Your task to perform on an android device: Go to CNN.com Image 0: 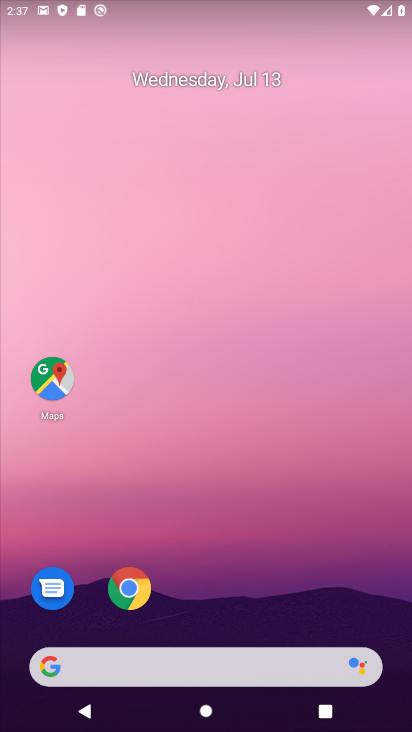
Step 0: click (131, 129)
Your task to perform on an android device: Go to CNN.com Image 1: 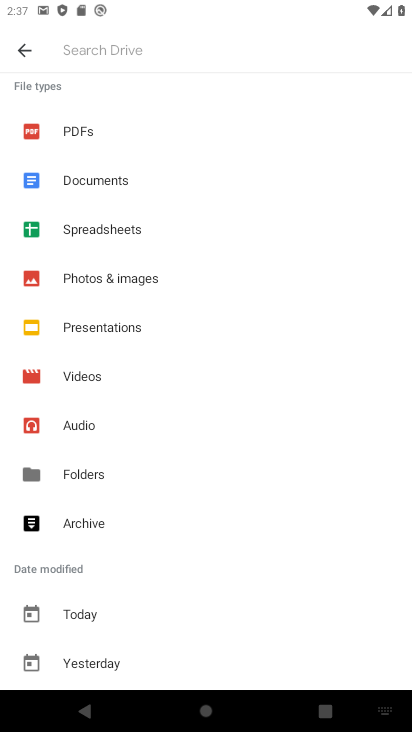
Step 1: click (23, 47)
Your task to perform on an android device: Go to CNN.com Image 2: 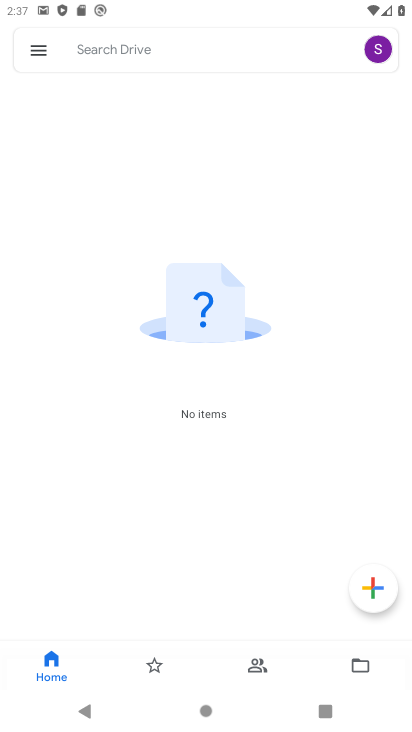
Step 2: press back button
Your task to perform on an android device: Go to CNN.com Image 3: 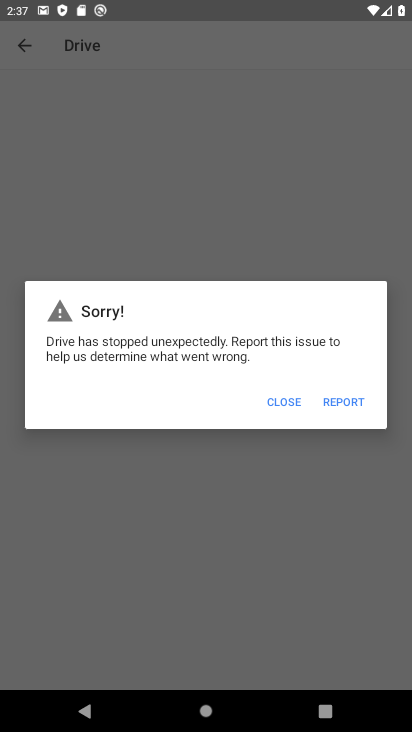
Step 3: click (286, 406)
Your task to perform on an android device: Go to CNN.com Image 4: 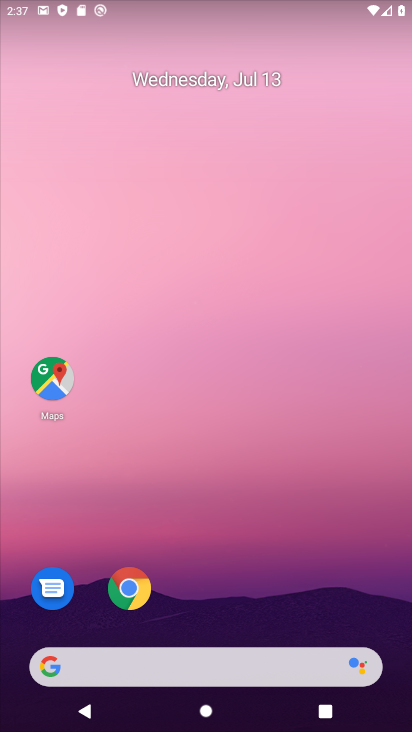
Step 4: drag from (275, 678) to (218, 73)
Your task to perform on an android device: Go to CNN.com Image 5: 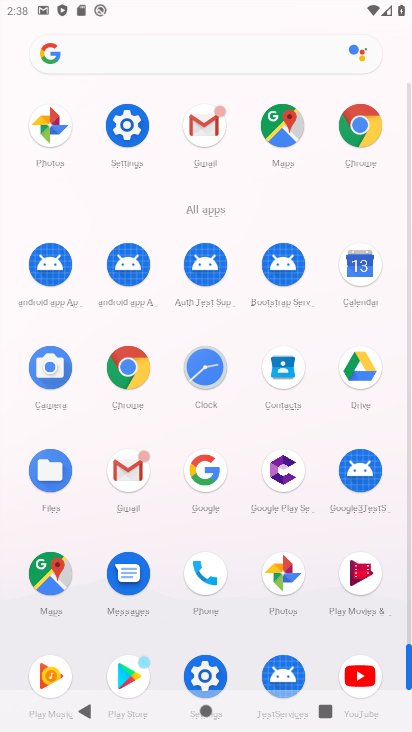
Step 5: click (361, 126)
Your task to perform on an android device: Go to CNN.com Image 6: 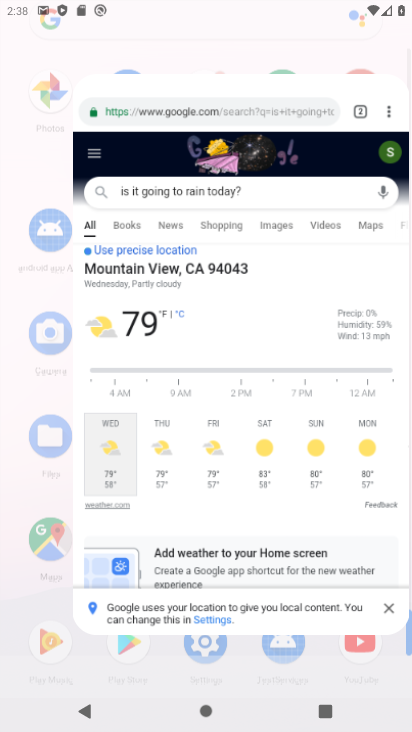
Step 6: click (362, 121)
Your task to perform on an android device: Go to CNN.com Image 7: 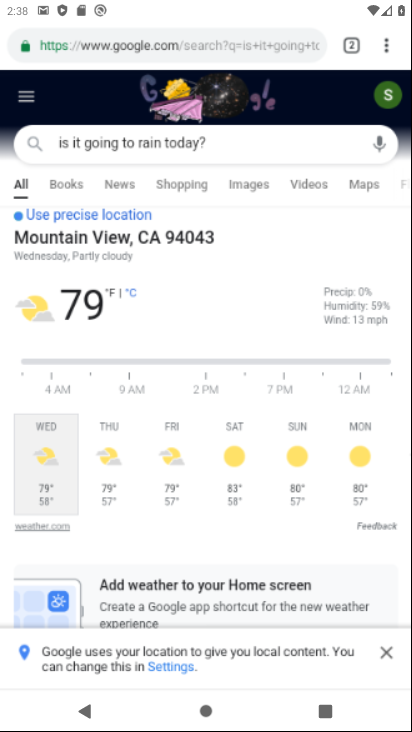
Step 7: click (370, 115)
Your task to perform on an android device: Go to CNN.com Image 8: 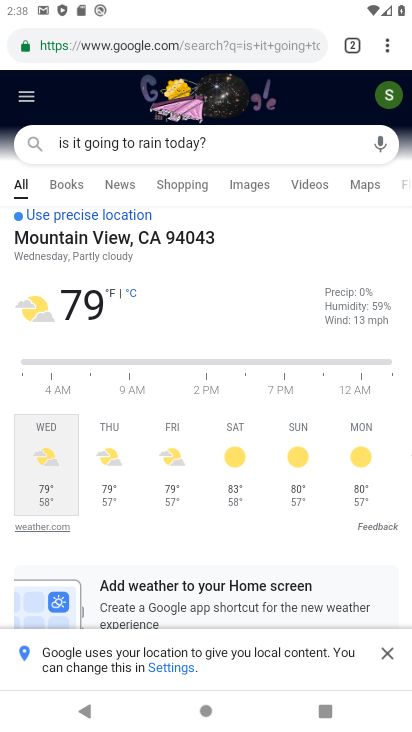
Step 8: press back button
Your task to perform on an android device: Go to CNN.com Image 9: 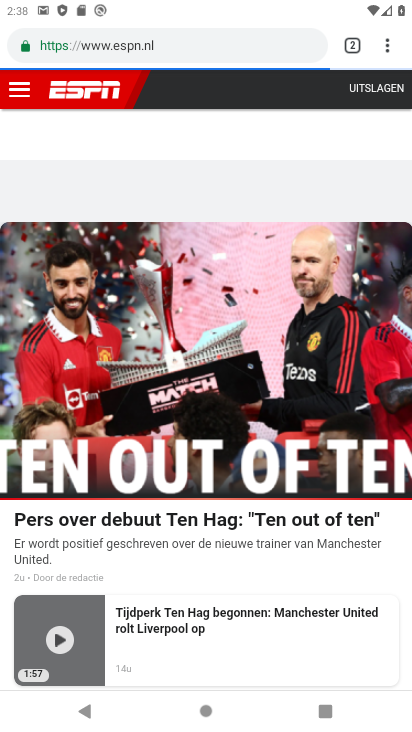
Step 9: press home button
Your task to perform on an android device: Go to CNN.com Image 10: 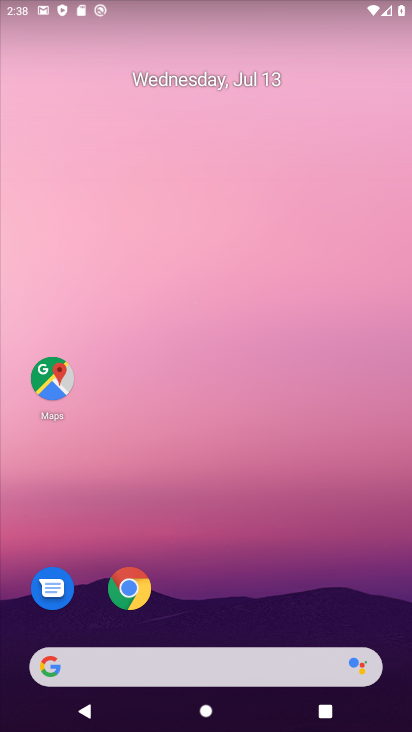
Step 10: drag from (258, 484) to (167, 4)
Your task to perform on an android device: Go to CNN.com Image 11: 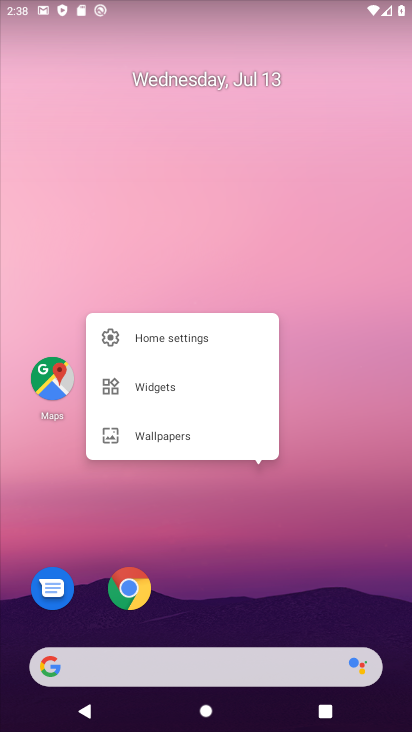
Step 11: drag from (317, 596) to (253, 37)
Your task to perform on an android device: Go to CNN.com Image 12: 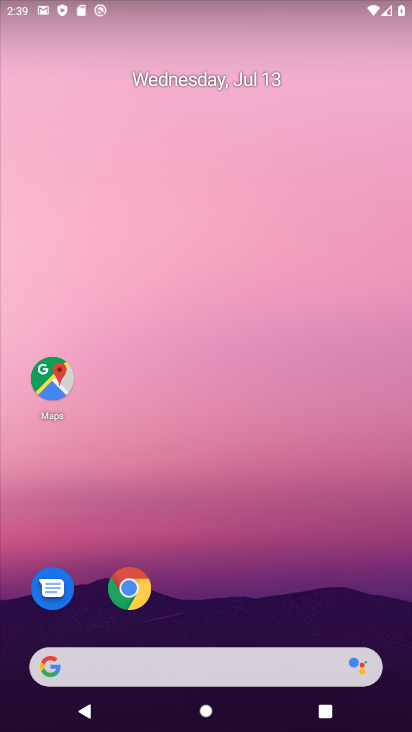
Step 12: drag from (200, 544) to (209, 38)
Your task to perform on an android device: Go to CNN.com Image 13: 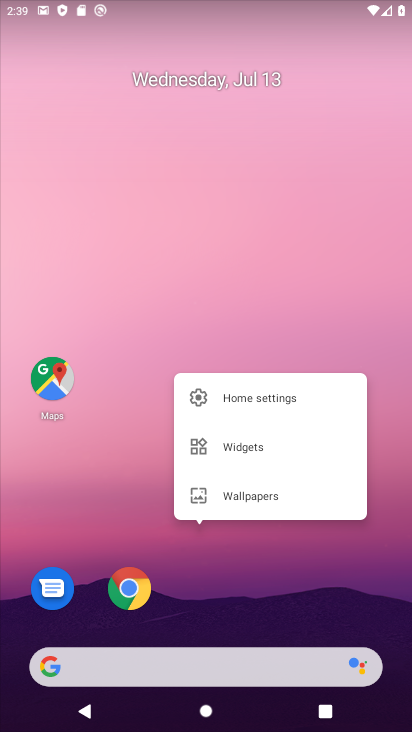
Step 13: click (238, 8)
Your task to perform on an android device: Go to CNN.com Image 14: 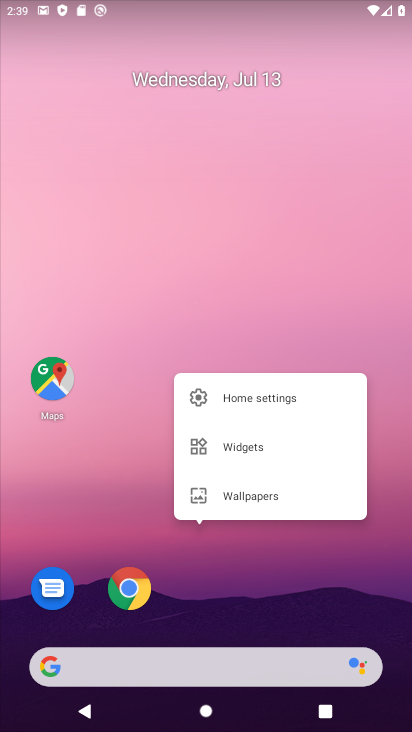
Step 14: drag from (170, 264) to (164, 30)
Your task to perform on an android device: Go to CNN.com Image 15: 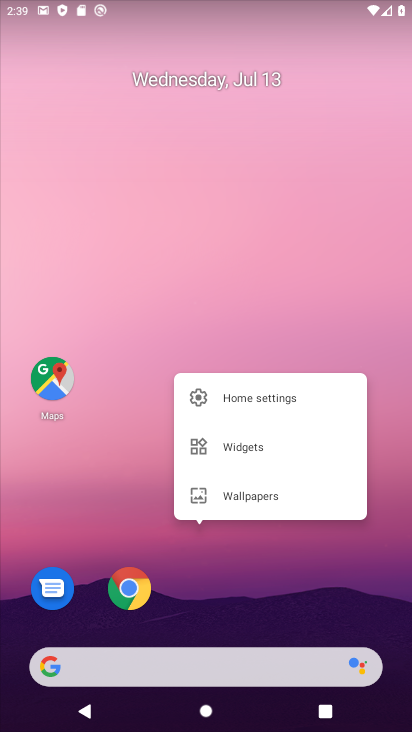
Step 15: drag from (187, 41) to (158, 7)
Your task to perform on an android device: Go to CNN.com Image 16: 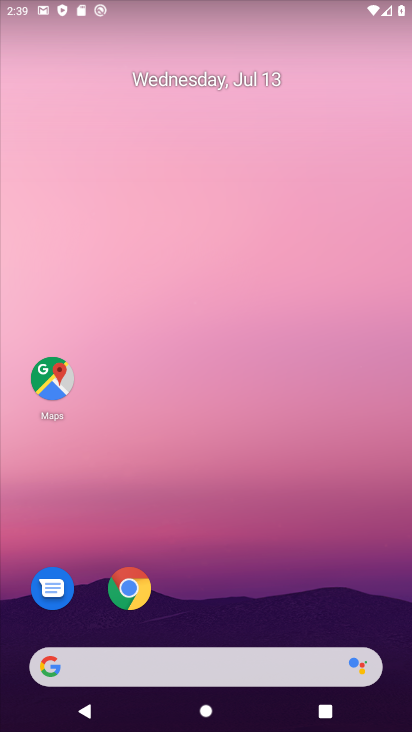
Step 16: drag from (222, 228) to (227, 37)
Your task to perform on an android device: Go to CNN.com Image 17: 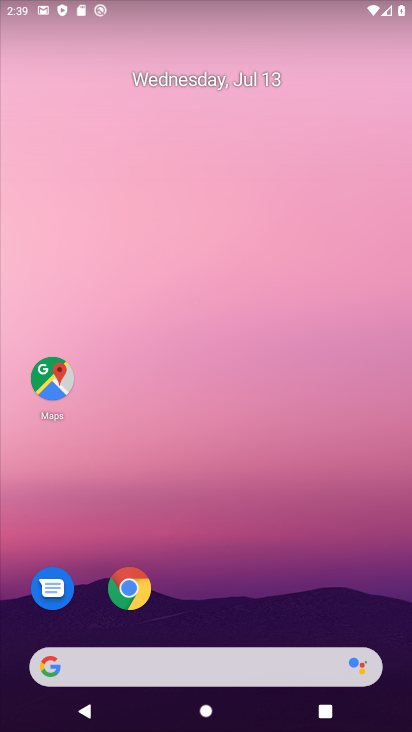
Step 17: drag from (229, 571) to (137, 142)
Your task to perform on an android device: Go to CNN.com Image 18: 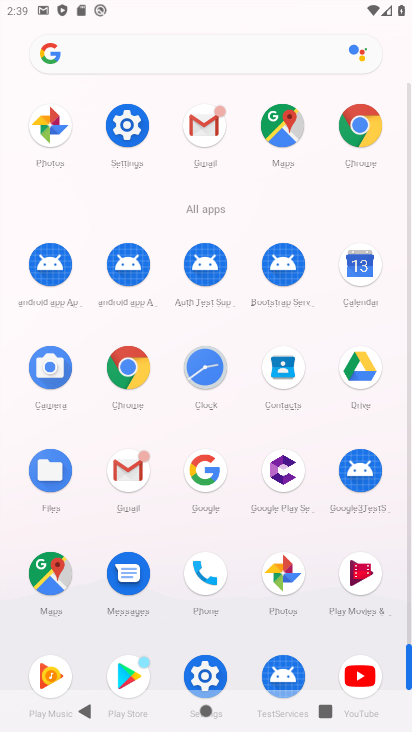
Step 18: click (346, 124)
Your task to perform on an android device: Go to CNN.com Image 19: 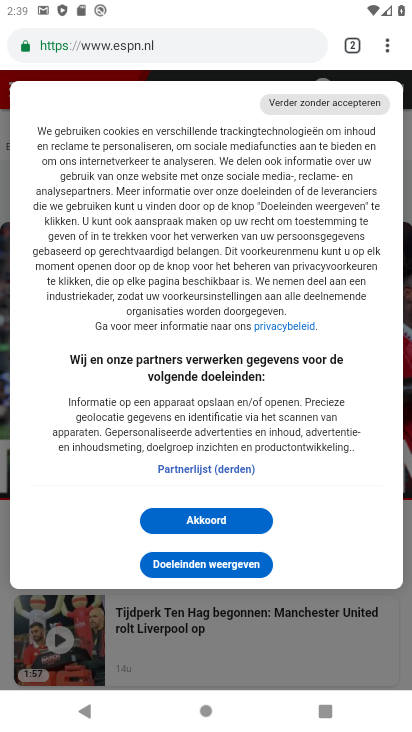
Step 19: task complete